Your task to perform on an android device: Open maps Image 0: 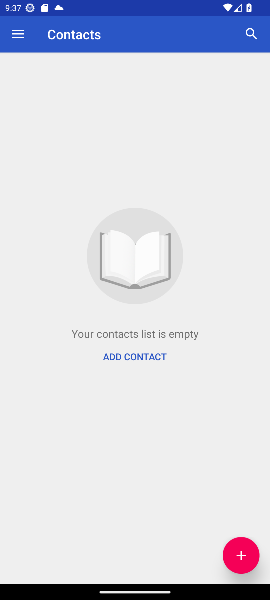
Step 0: press home button
Your task to perform on an android device: Open maps Image 1: 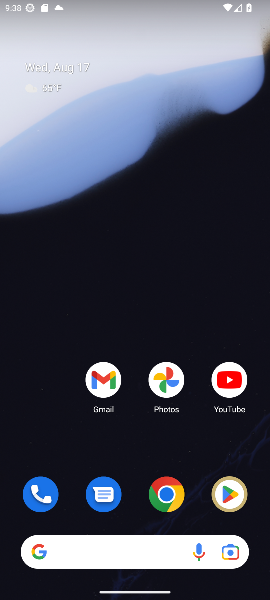
Step 1: drag from (134, 446) to (131, 113)
Your task to perform on an android device: Open maps Image 2: 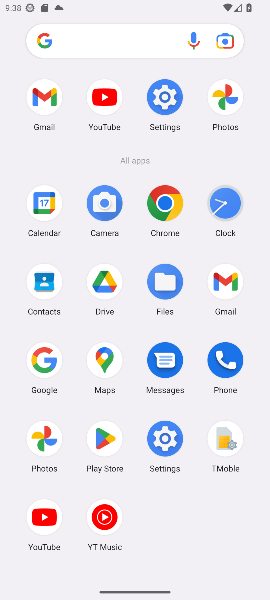
Step 2: click (96, 360)
Your task to perform on an android device: Open maps Image 3: 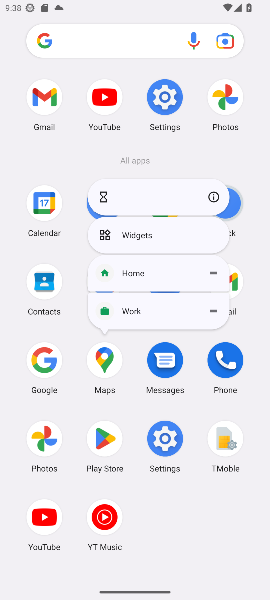
Step 3: click (101, 356)
Your task to perform on an android device: Open maps Image 4: 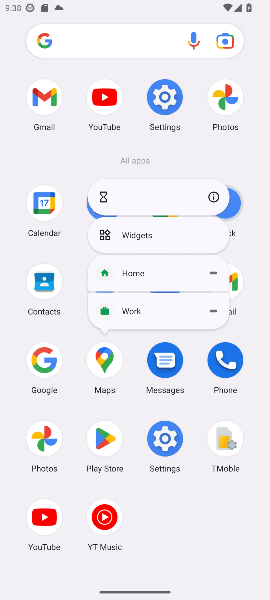
Step 4: click (101, 358)
Your task to perform on an android device: Open maps Image 5: 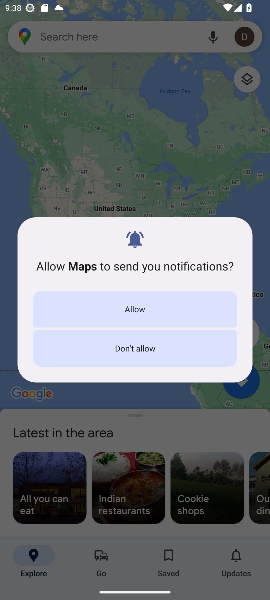
Step 5: click (93, 345)
Your task to perform on an android device: Open maps Image 6: 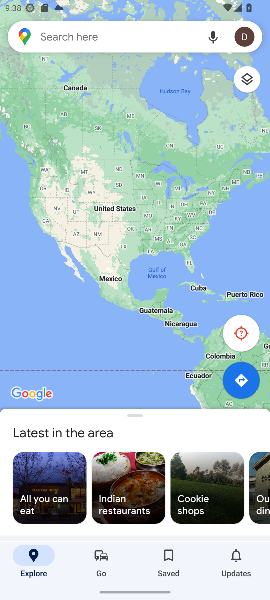
Step 6: task complete